Your task to perform on an android device: delete the emails in spam in the gmail app Image 0: 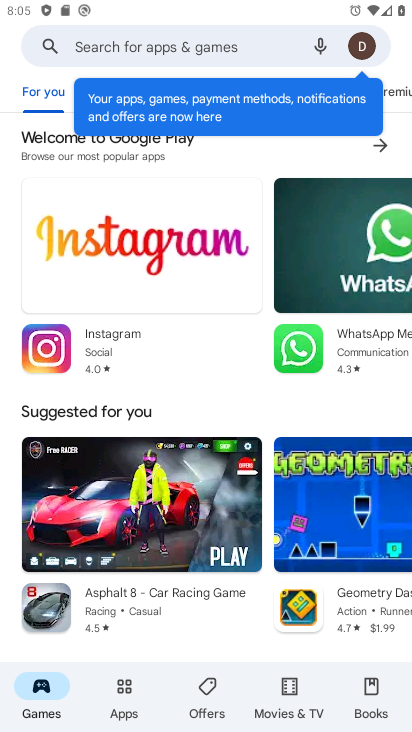
Step 0: press home button
Your task to perform on an android device: delete the emails in spam in the gmail app Image 1: 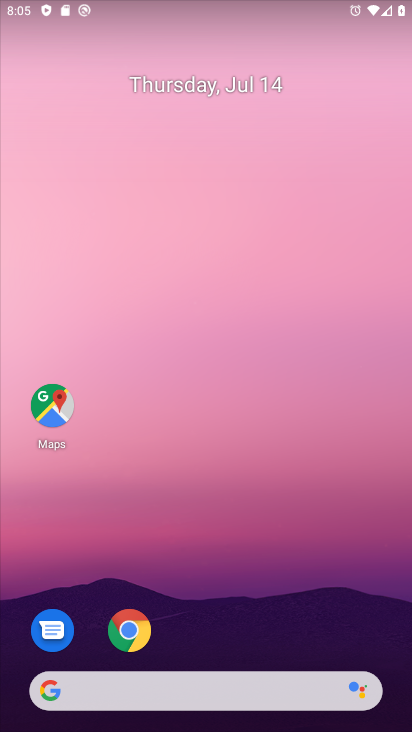
Step 1: drag from (226, 714) to (218, 440)
Your task to perform on an android device: delete the emails in spam in the gmail app Image 2: 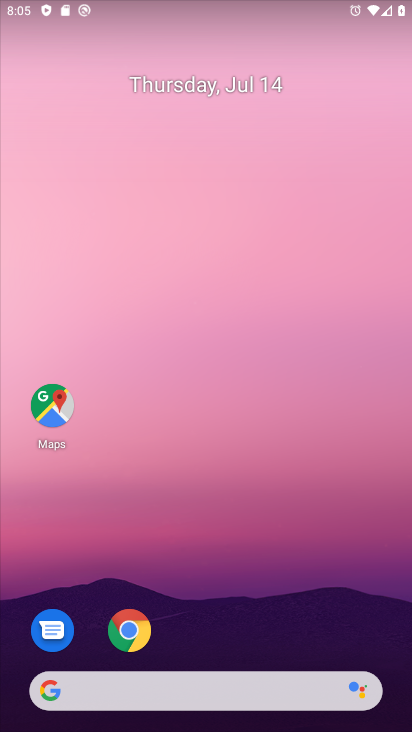
Step 2: drag from (252, 717) to (254, 351)
Your task to perform on an android device: delete the emails in spam in the gmail app Image 3: 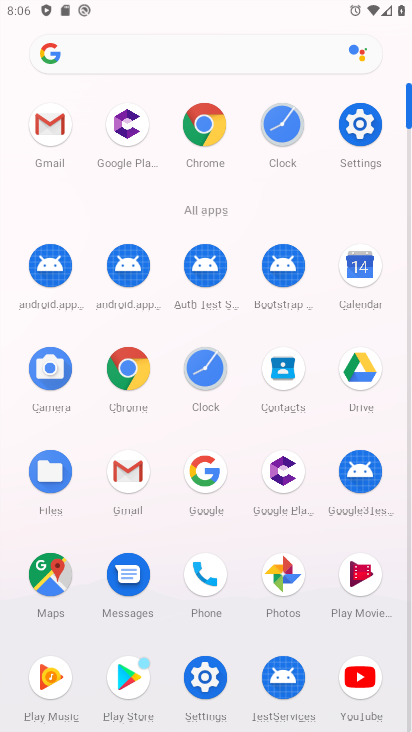
Step 3: click (134, 466)
Your task to perform on an android device: delete the emails in spam in the gmail app Image 4: 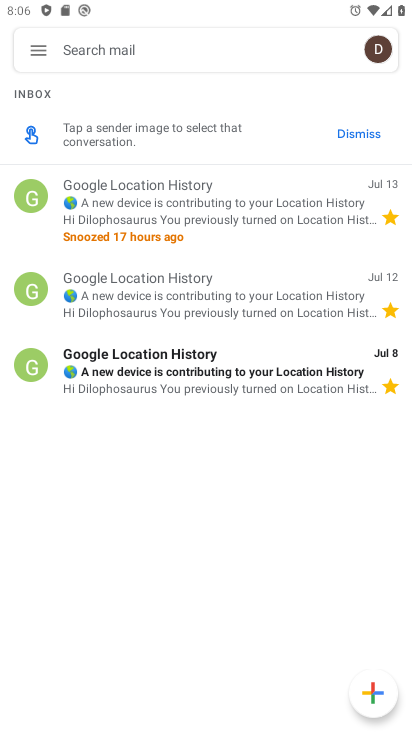
Step 4: click (41, 51)
Your task to perform on an android device: delete the emails in spam in the gmail app Image 5: 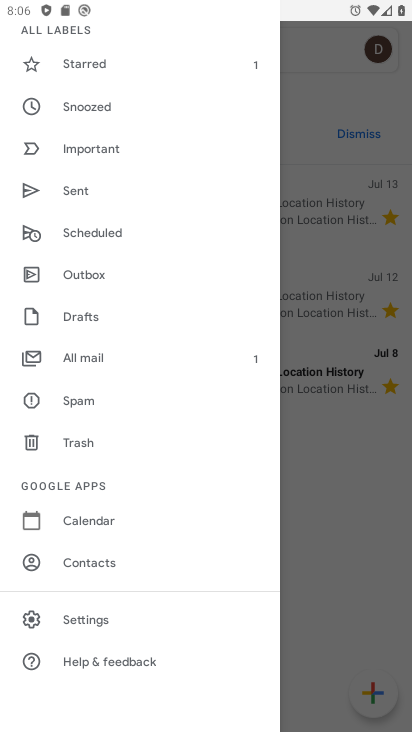
Step 5: click (83, 400)
Your task to perform on an android device: delete the emails in spam in the gmail app Image 6: 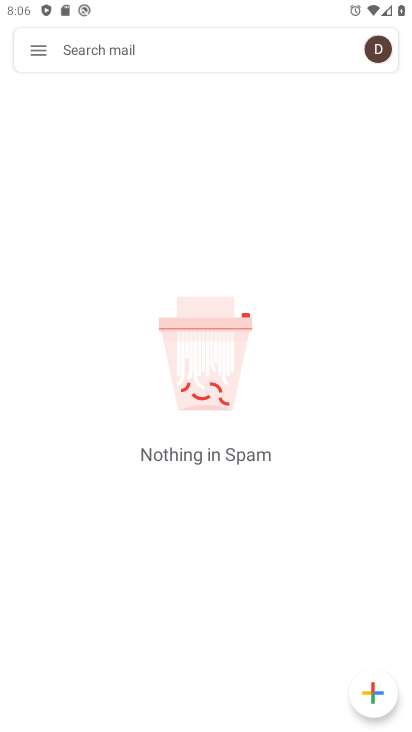
Step 6: task complete